Your task to perform on an android device: Go to Maps Image 0: 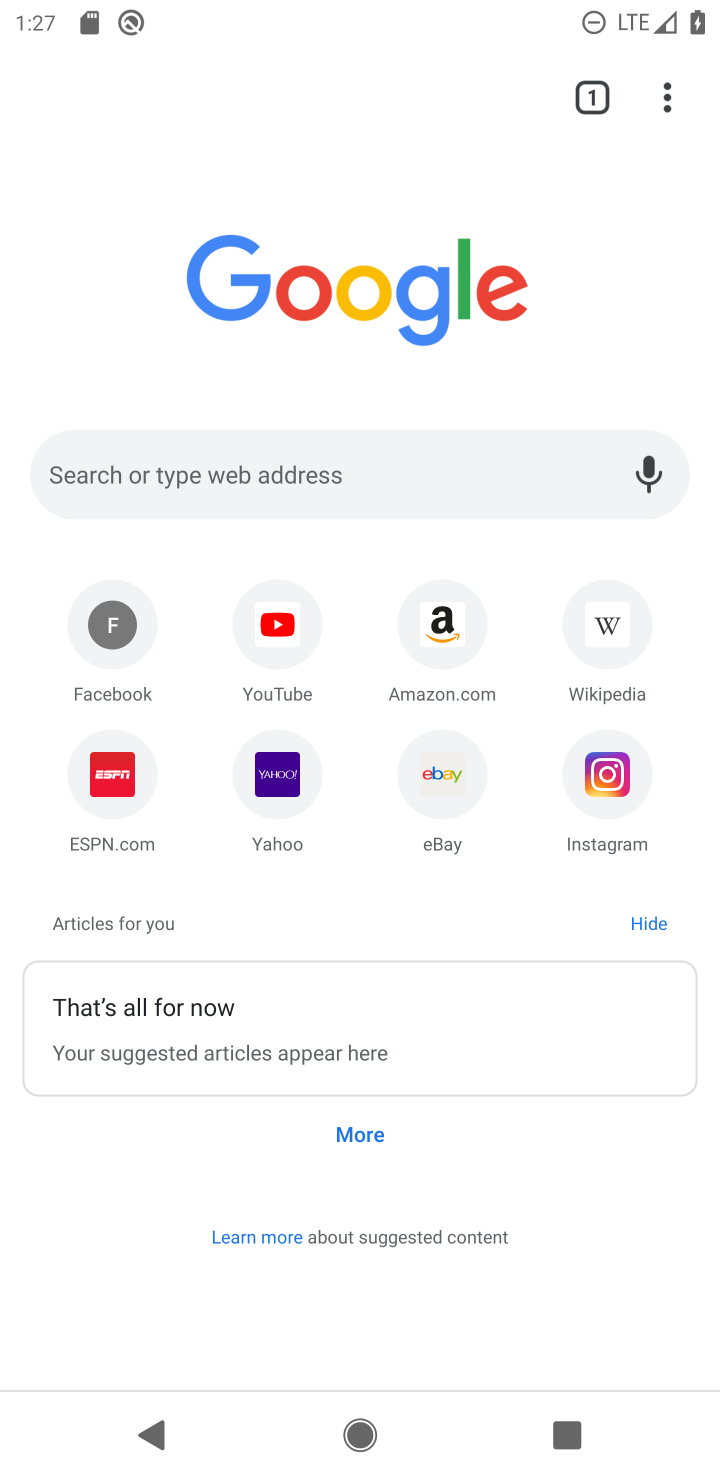
Step 0: press home button
Your task to perform on an android device: Go to Maps Image 1: 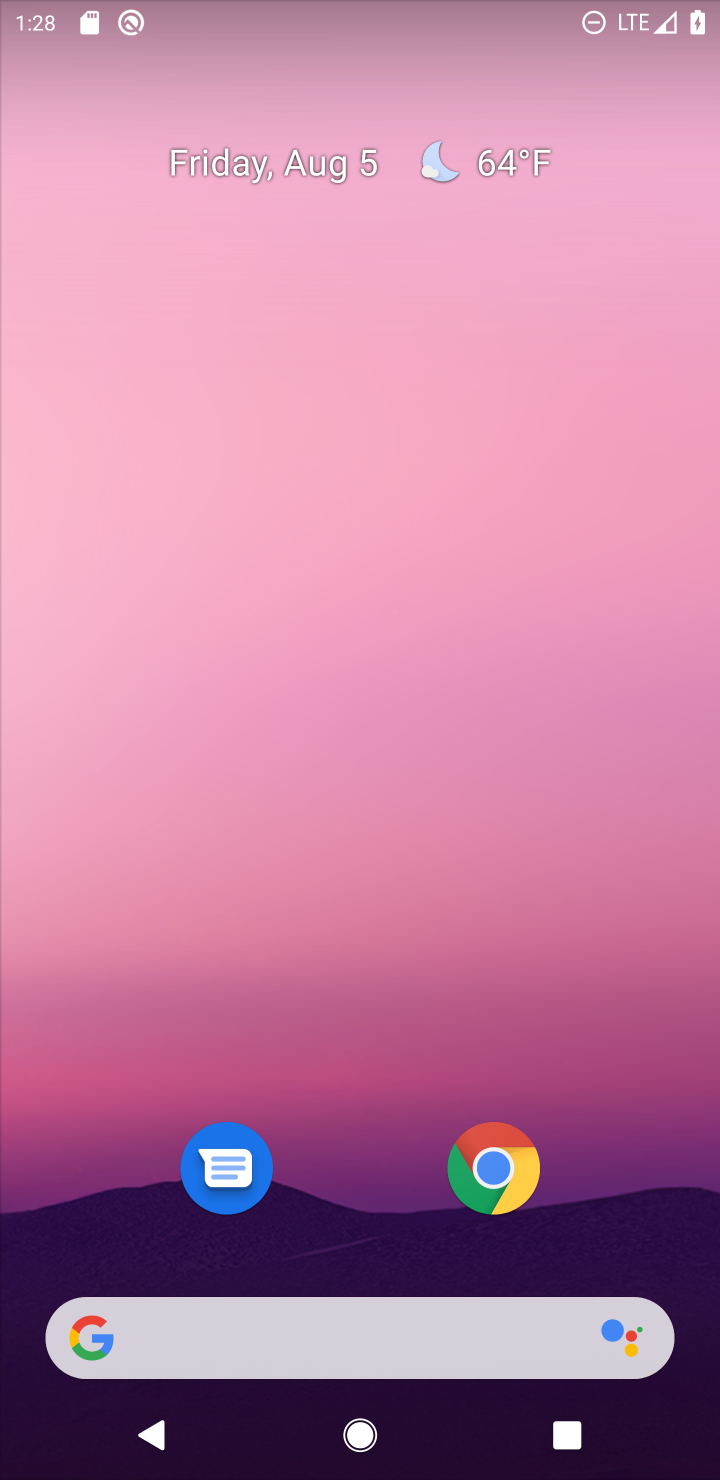
Step 1: drag from (627, 1183) to (389, 45)
Your task to perform on an android device: Go to Maps Image 2: 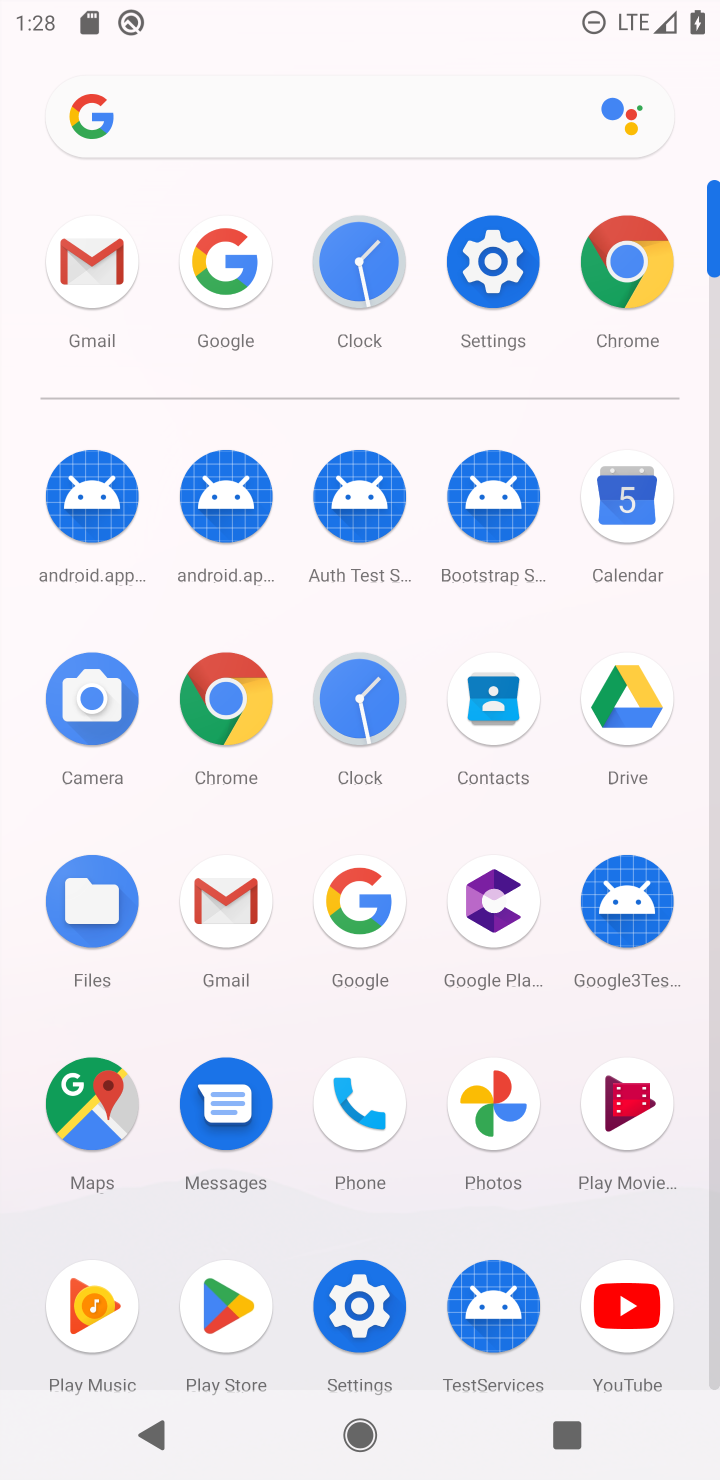
Step 2: click (80, 1127)
Your task to perform on an android device: Go to Maps Image 3: 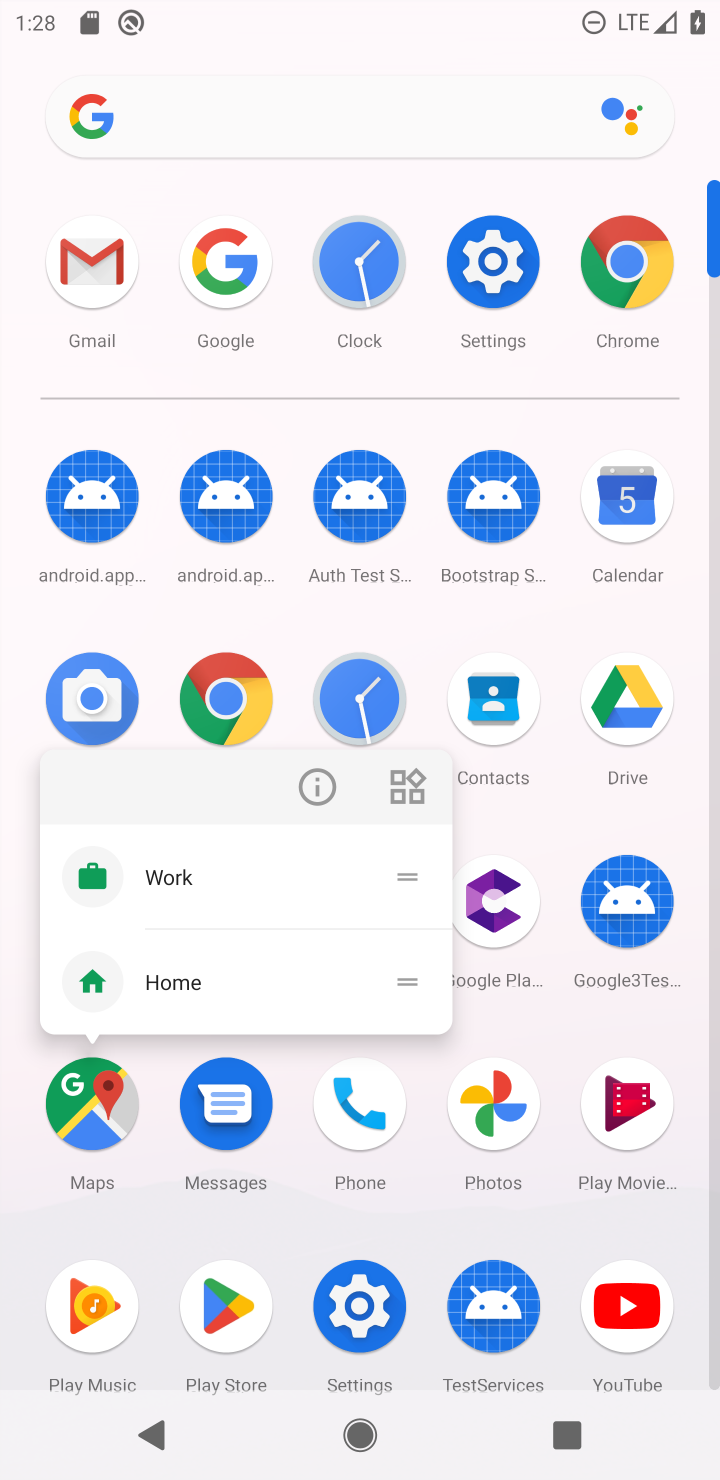
Step 3: click (80, 1127)
Your task to perform on an android device: Go to Maps Image 4: 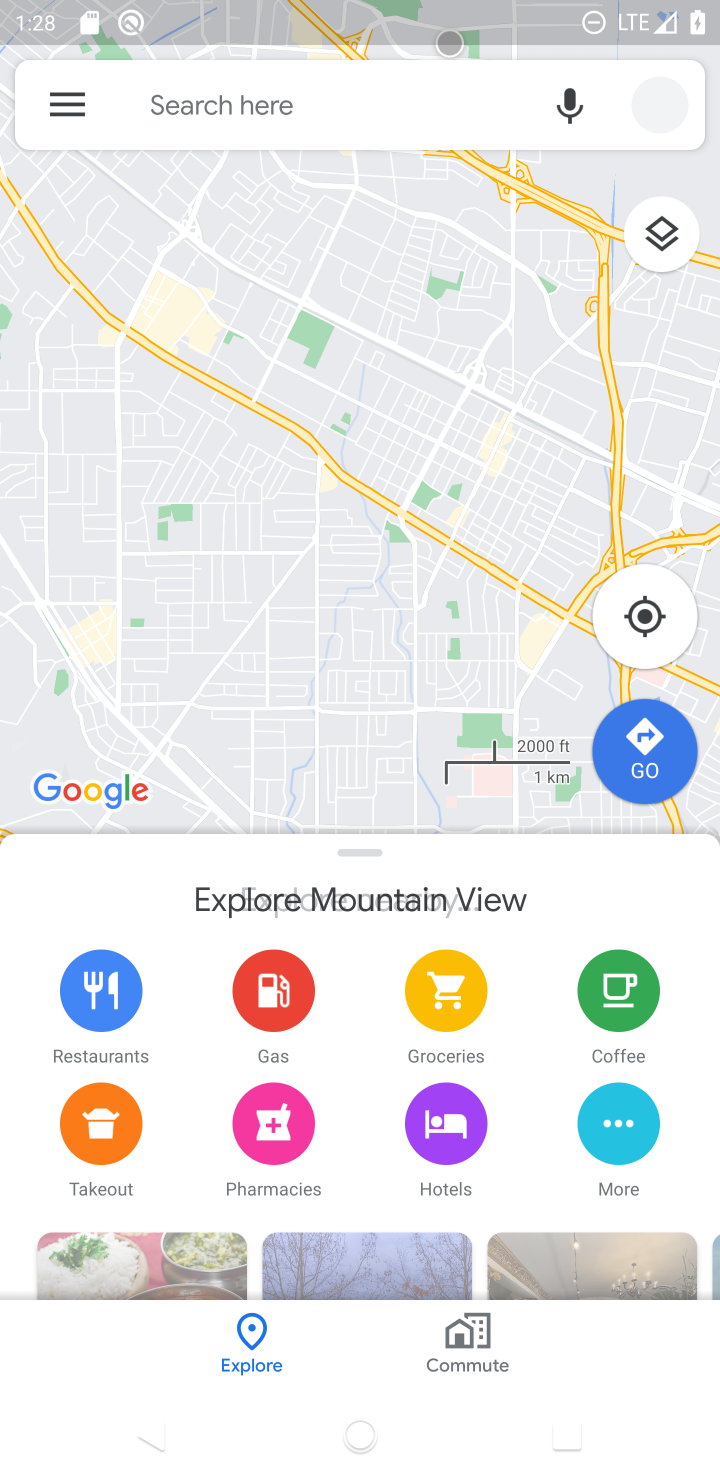
Step 4: task complete